Your task to perform on an android device: change notification settings in the gmail app Image 0: 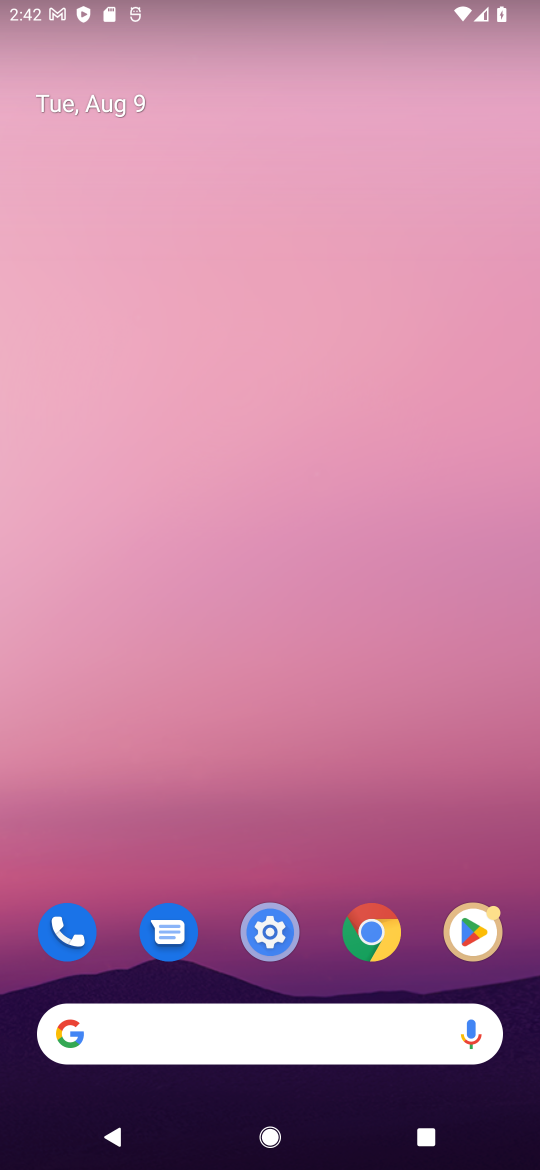
Step 0: drag from (316, 878) to (408, 78)
Your task to perform on an android device: change notification settings in the gmail app Image 1: 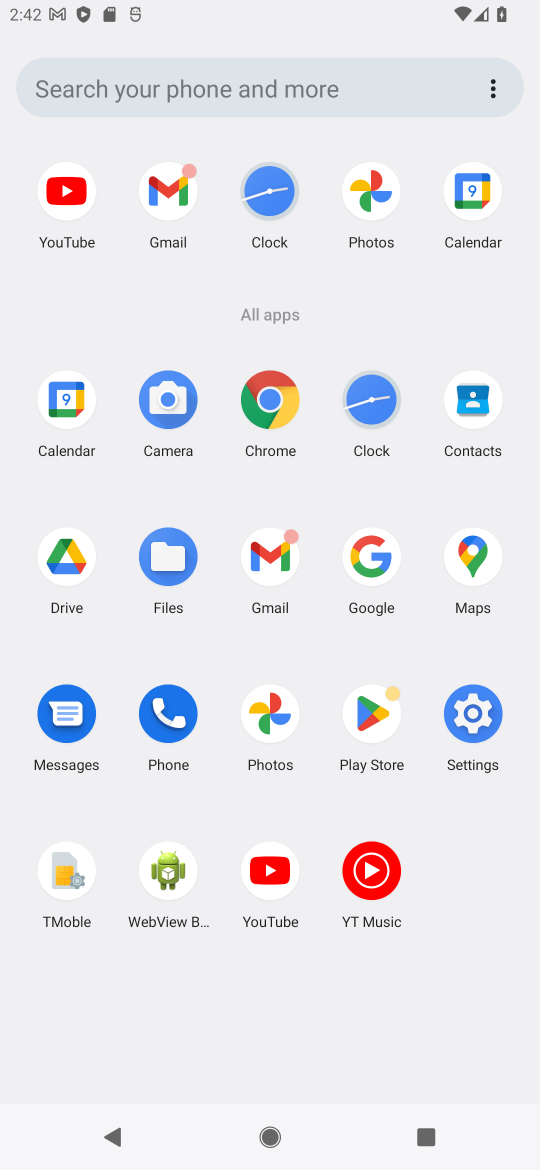
Step 1: click (265, 575)
Your task to perform on an android device: change notification settings in the gmail app Image 2: 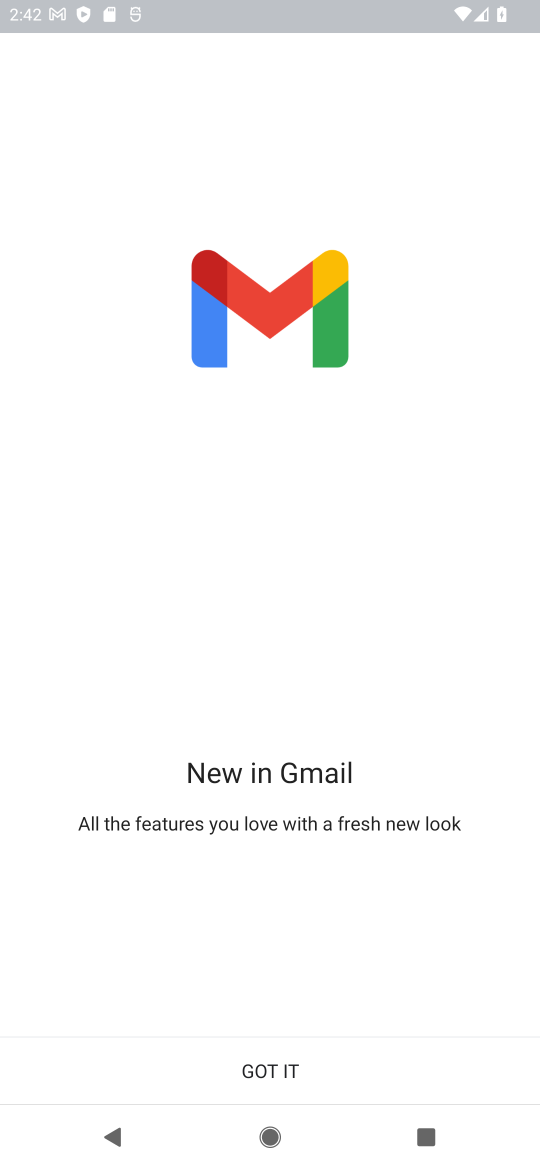
Step 2: click (270, 1056)
Your task to perform on an android device: change notification settings in the gmail app Image 3: 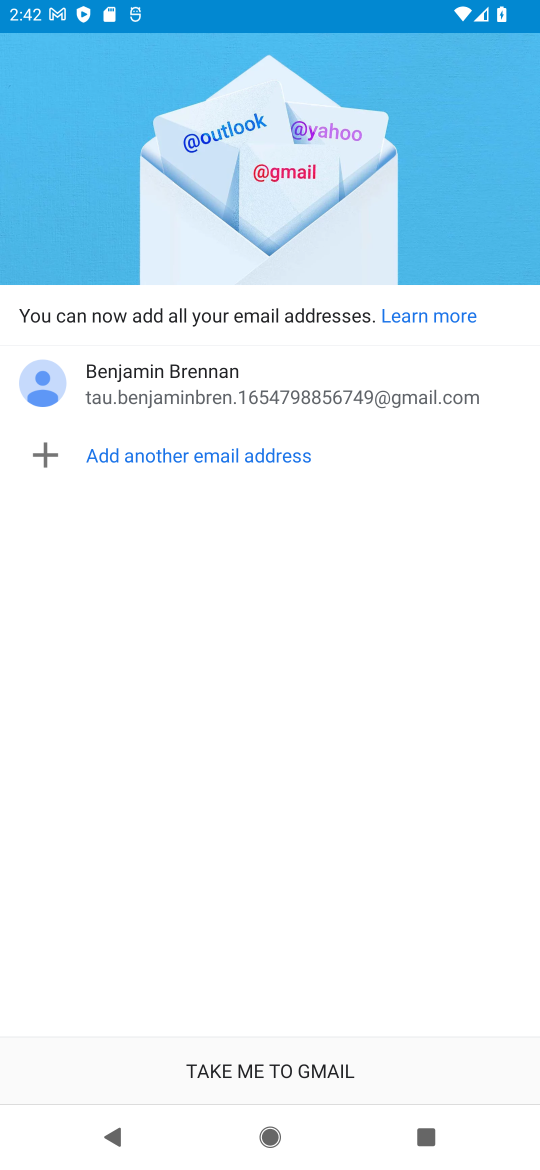
Step 3: click (270, 1056)
Your task to perform on an android device: change notification settings in the gmail app Image 4: 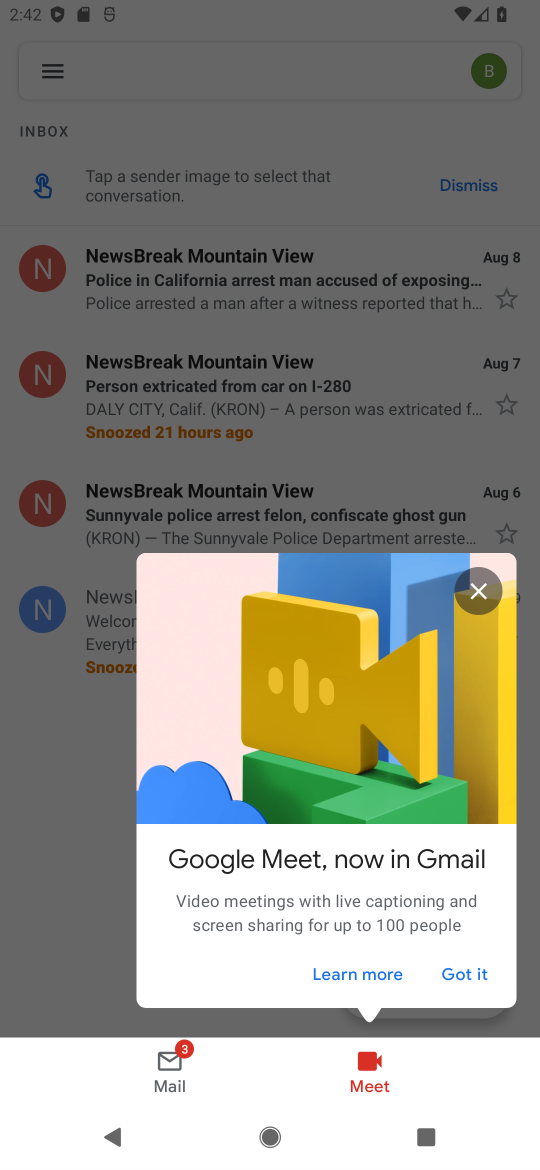
Step 4: click (480, 604)
Your task to perform on an android device: change notification settings in the gmail app Image 5: 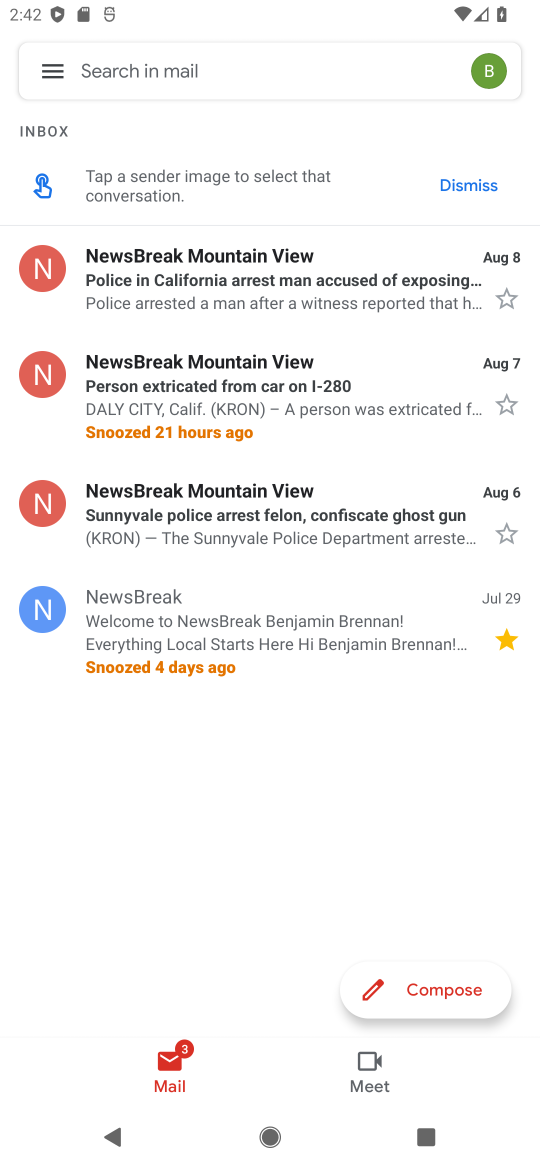
Step 5: click (58, 66)
Your task to perform on an android device: change notification settings in the gmail app Image 6: 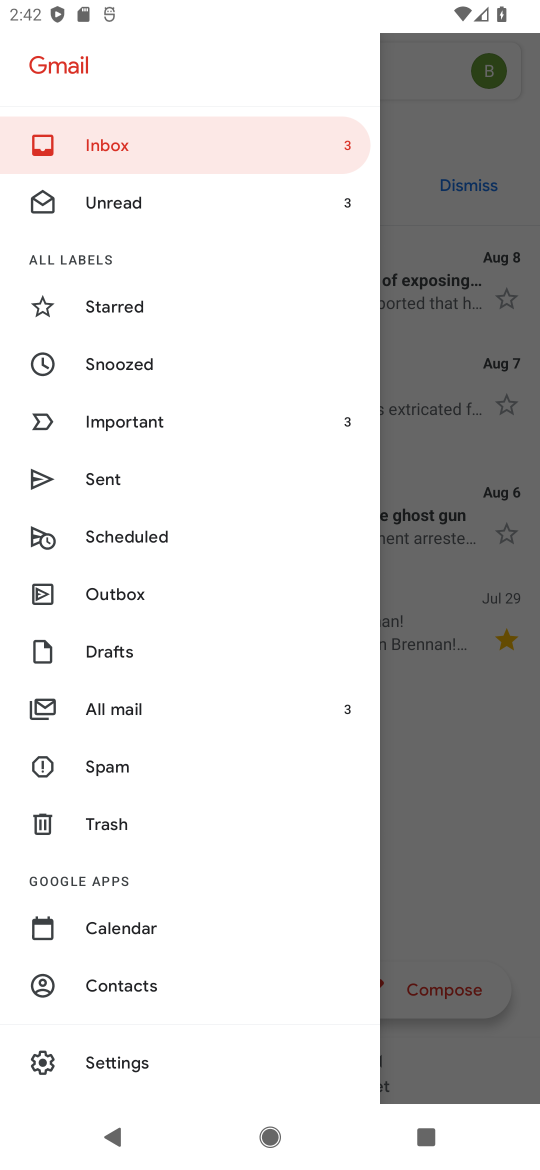
Step 6: click (104, 1063)
Your task to perform on an android device: change notification settings in the gmail app Image 7: 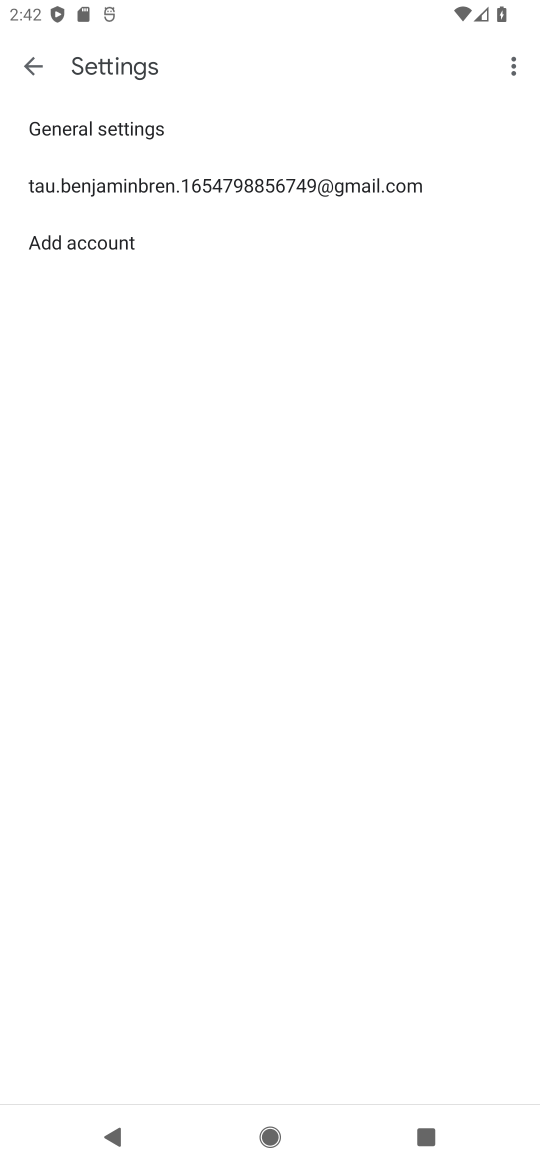
Step 7: click (234, 178)
Your task to perform on an android device: change notification settings in the gmail app Image 8: 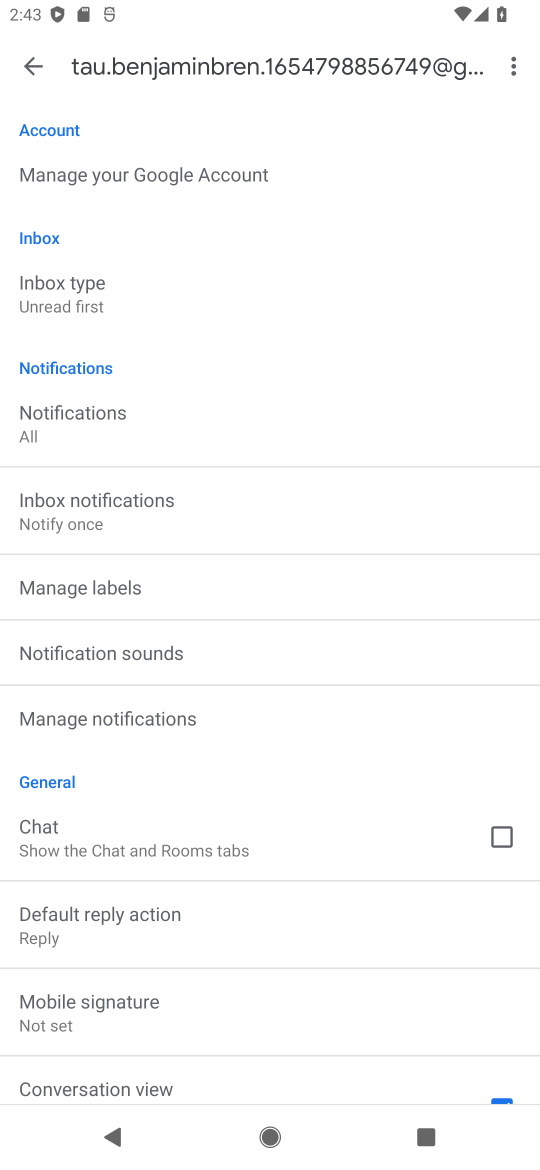
Step 8: click (84, 430)
Your task to perform on an android device: change notification settings in the gmail app Image 9: 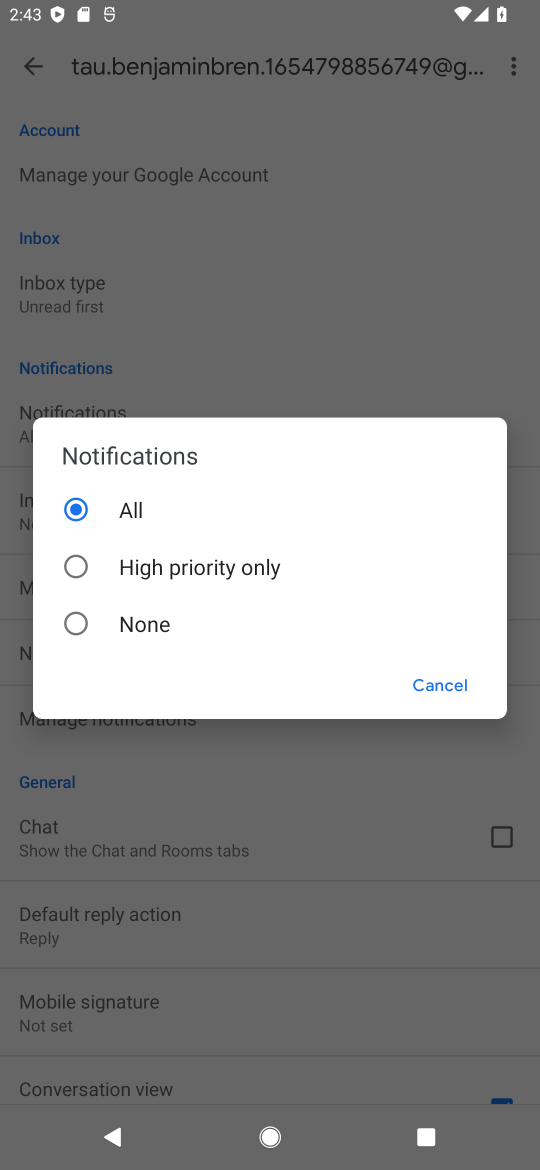
Step 9: click (69, 626)
Your task to perform on an android device: change notification settings in the gmail app Image 10: 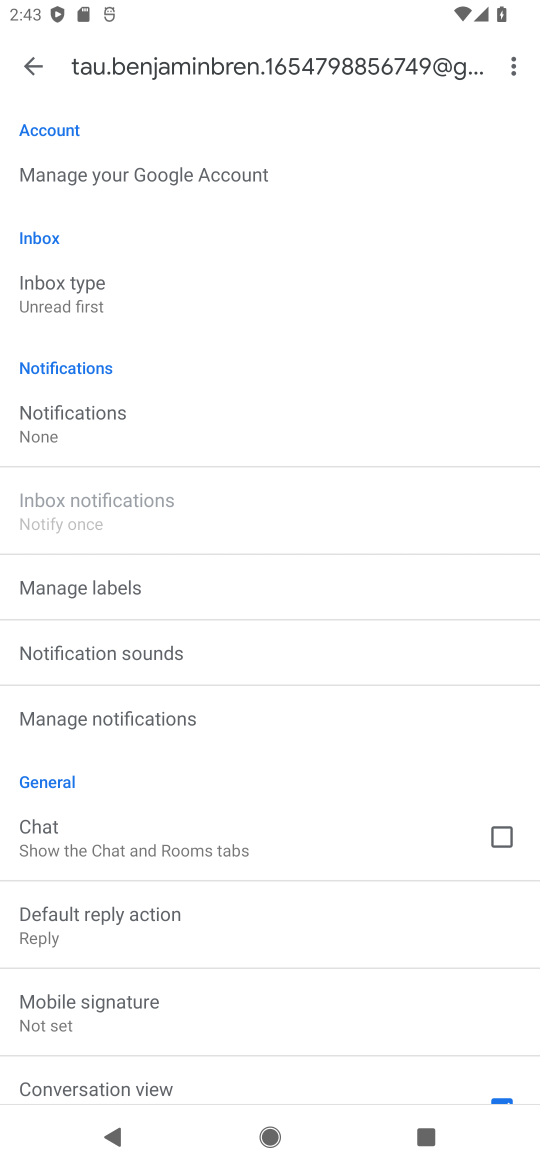
Step 10: task complete